Your task to perform on an android device: open app "Indeed Job Search" (install if not already installed) and enter user name: "quixotic@inbox.com" and password: "microphones" Image 0: 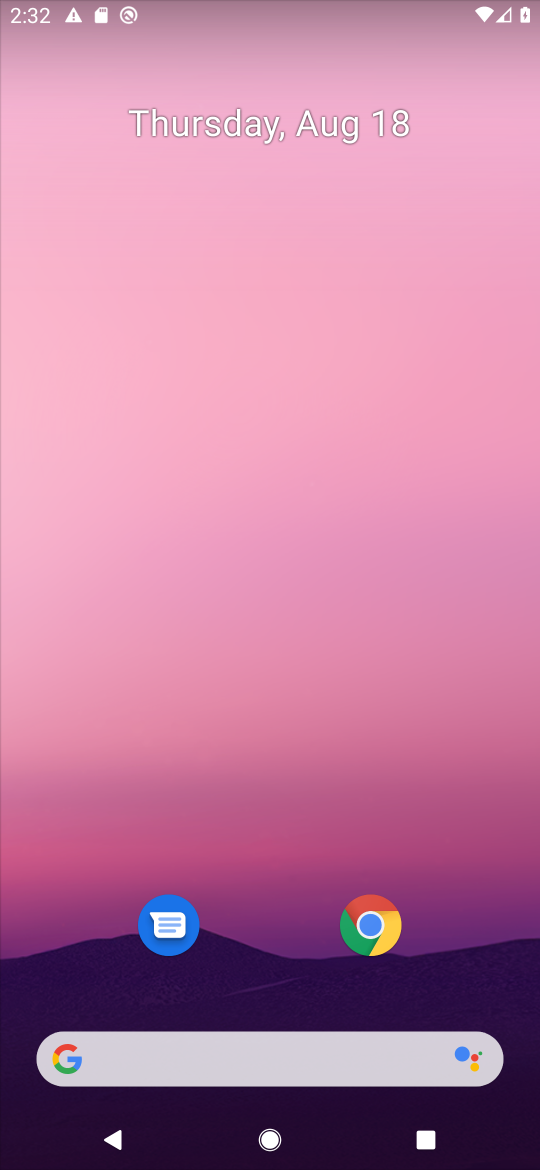
Step 0: click (250, 24)
Your task to perform on an android device: open app "Indeed Job Search" (install if not already installed) and enter user name: "quixotic@inbox.com" and password: "microphones" Image 1: 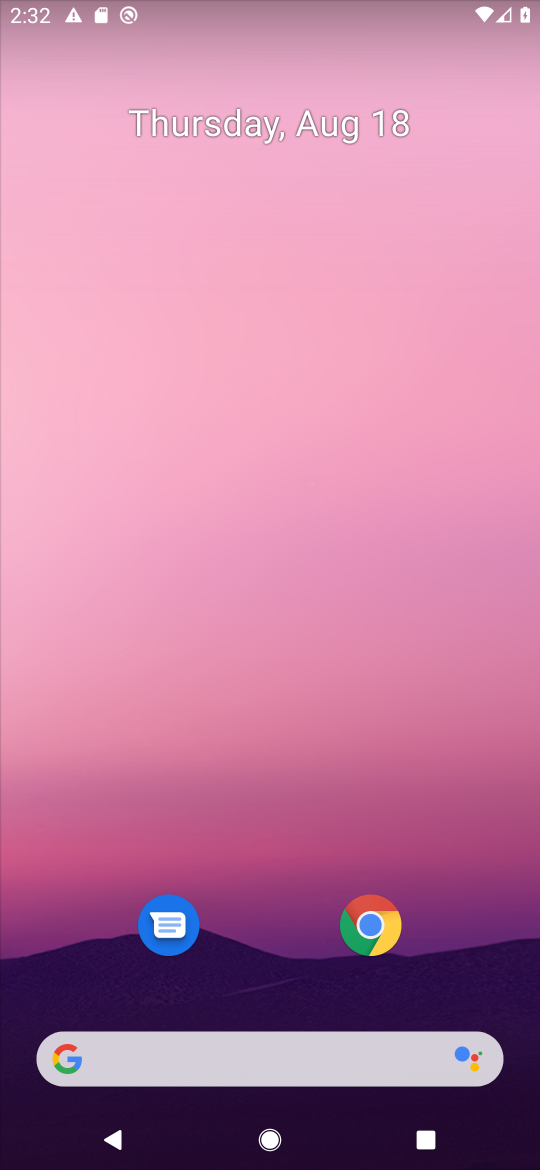
Step 1: drag from (261, 644) to (261, 110)
Your task to perform on an android device: open app "Indeed Job Search" (install if not already installed) and enter user name: "quixotic@inbox.com" and password: "microphones" Image 2: 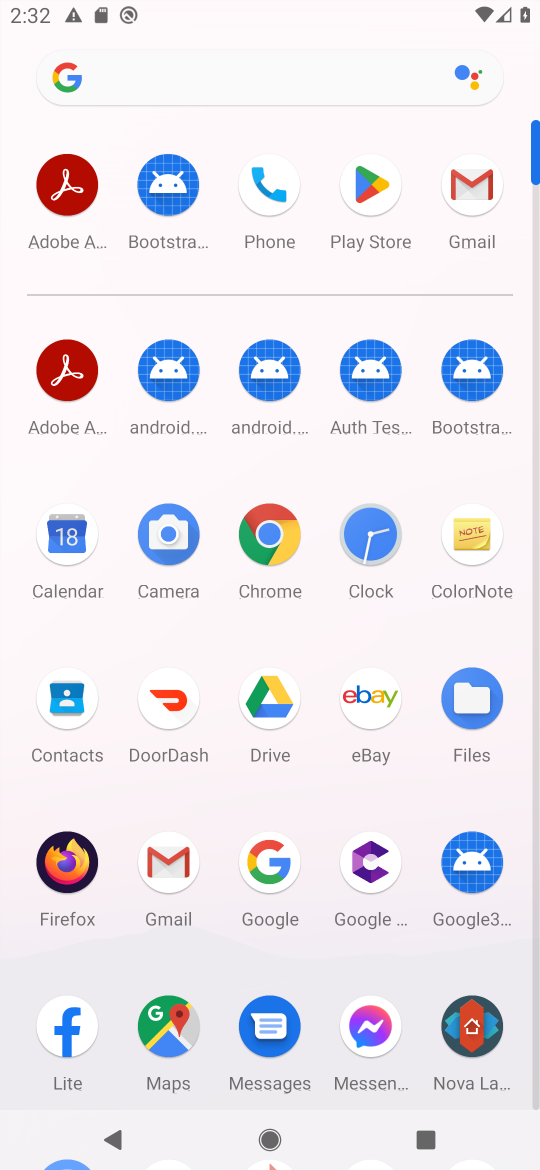
Step 2: click (382, 188)
Your task to perform on an android device: open app "Indeed Job Search" (install if not already installed) and enter user name: "quixotic@inbox.com" and password: "microphones" Image 3: 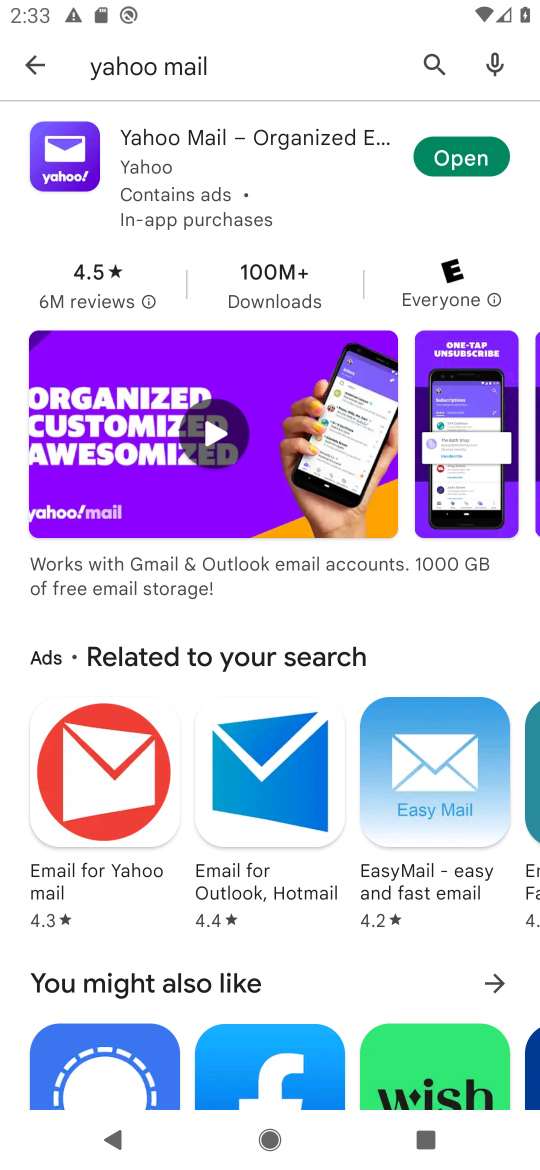
Step 3: click (37, 64)
Your task to perform on an android device: open app "Indeed Job Search" (install if not already installed) and enter user name: "quixotic@inbox.com" and password: "microphones" Image 4: 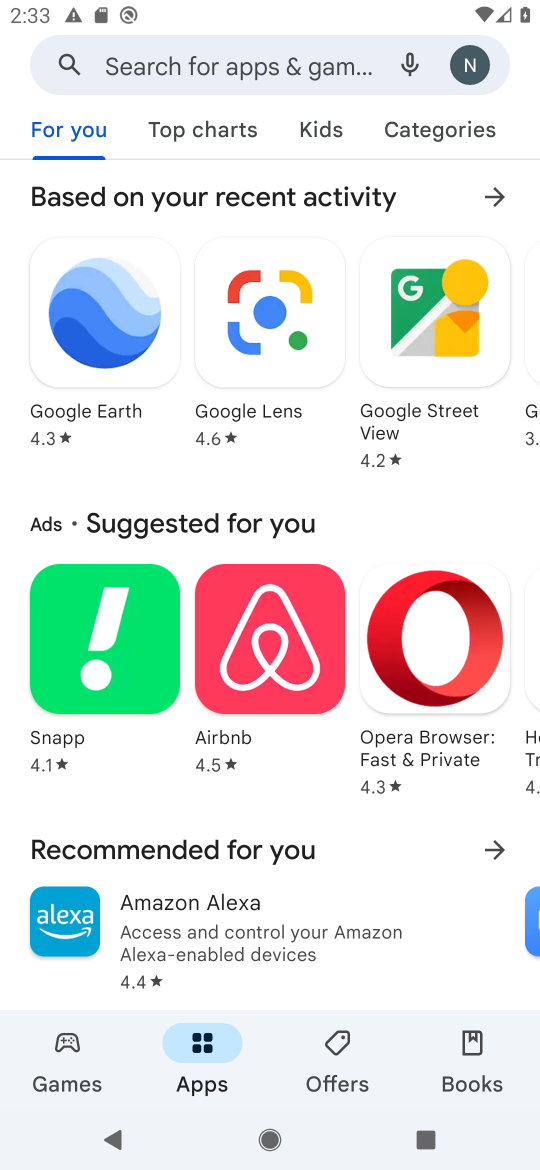
Step 4: click (302, 64)
Your task to perform on an android device: open app "Indeed Job Search" (install if not already installed) and enter user name: "quixotic@inbox.com" and password: "microphones" Image 5: 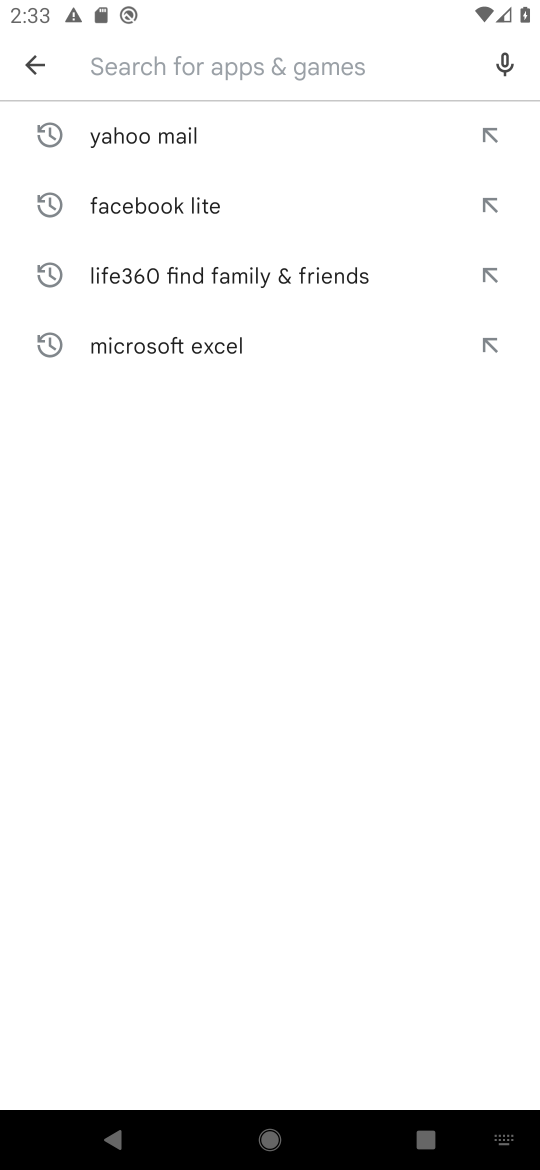
Step 5: type "Indeed Job Search"
Your task to perform on an android device: open app "Indeed Job Search" (install if not already installed) and enter user name: "quixotic@inbox.com" and password: "microphones" Image 6: 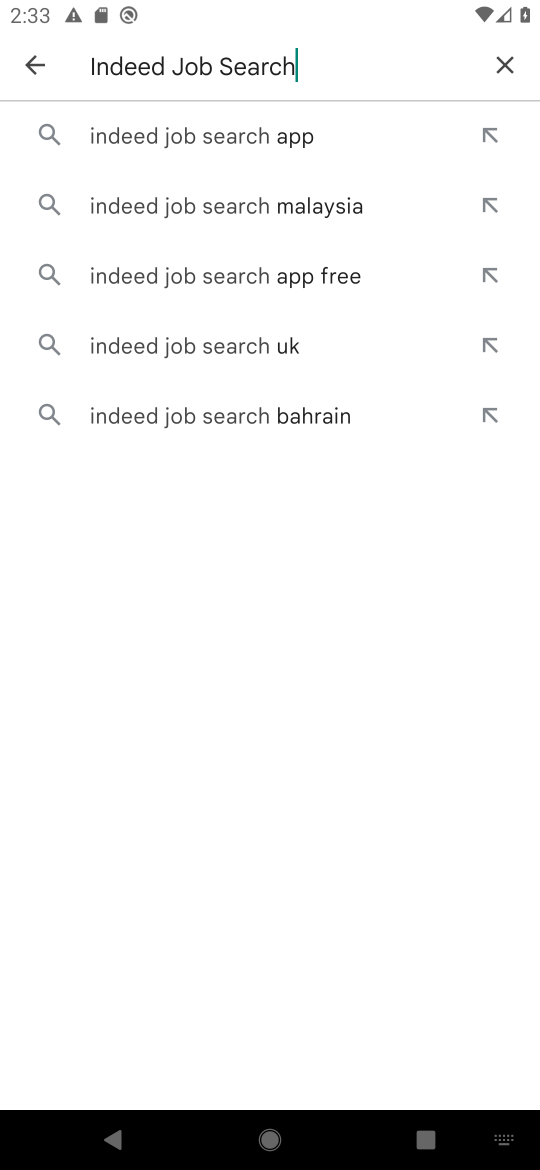
Step 6: click (220, 132)
Your task to perform on an android device: open app "Indeed Job Search" (install if not already installed) and enter user name: "quixotic@inbox.com" and password: "microphones" Image 7: 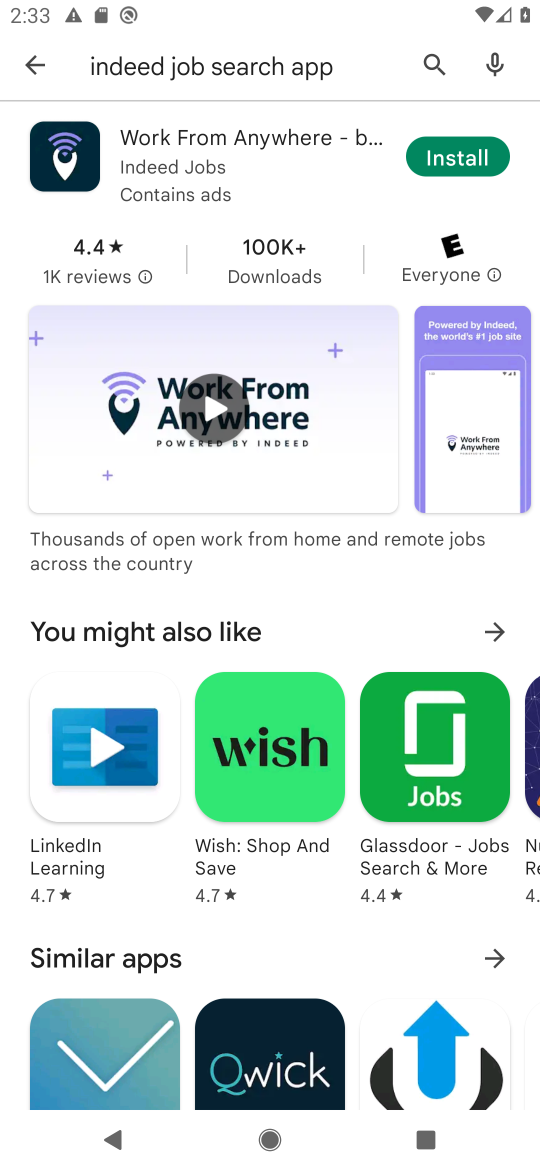
Step 7: click (458, 166)
Your task to perform on an android device: open app "Indeed Job Search" (install if not already installed) and enter user name: "quixotic@inbox.com" and password: "microphones" Image 8: 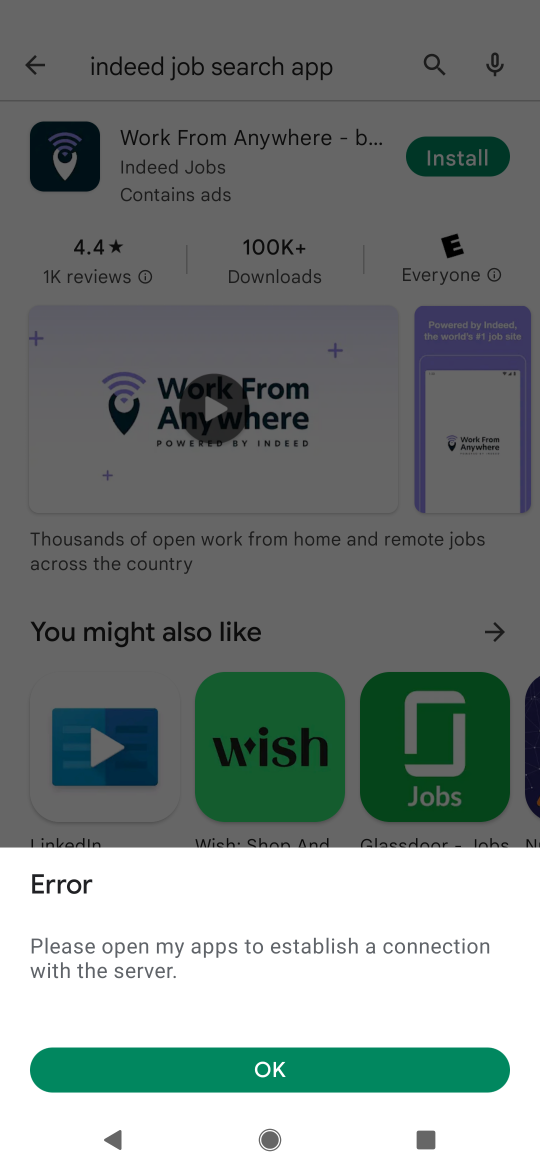
Step 8: task complete